Your task to perform on an android device: find photos in the google photos app Image 0: 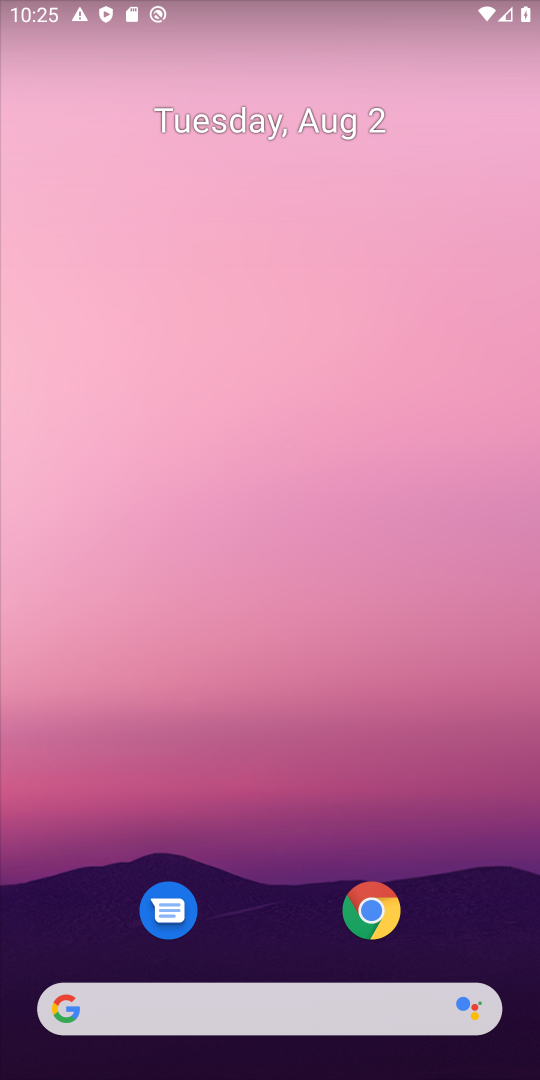
Step 0: drag from (258, 923) to (240, 10)
Your task to perform on an android device: find photos in the google photos app Image 1: 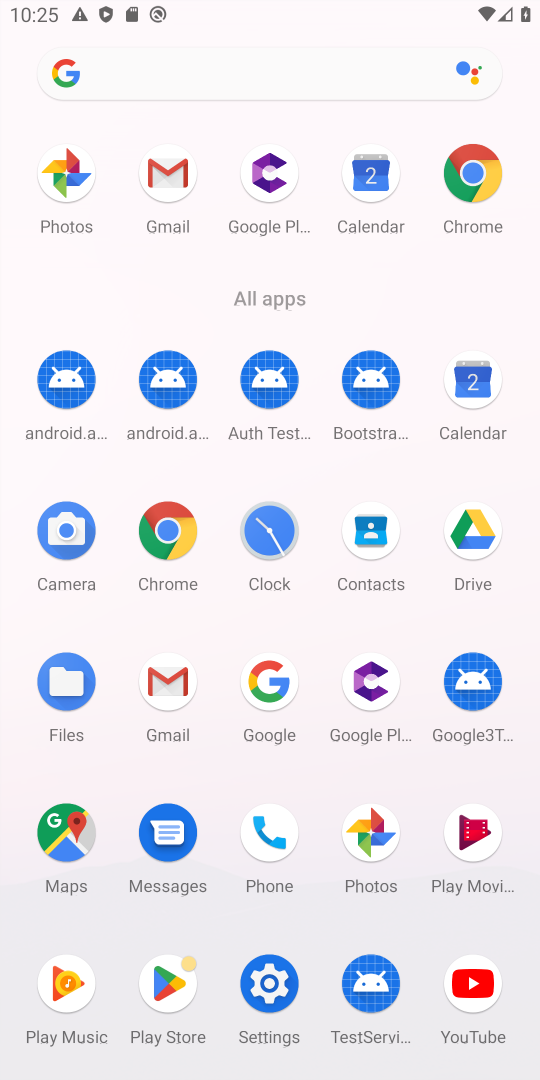
Step 1: click (368, 834)
Your task to perform on an android device: find photos in the google photos app Image 2: 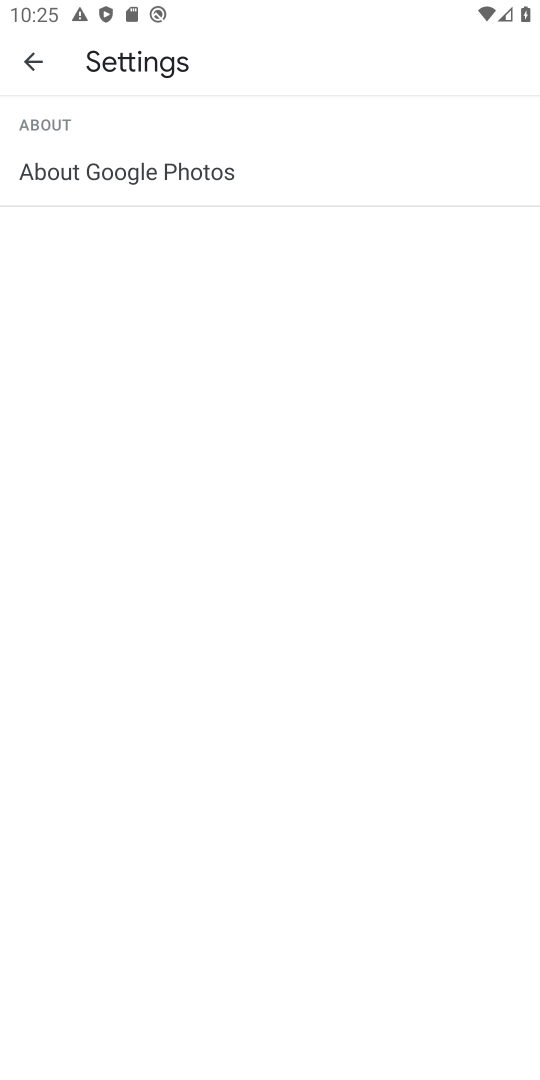
Step 2: click (30, 57)
Your task to perform on an android device: find photos in the google photos app Image 3: 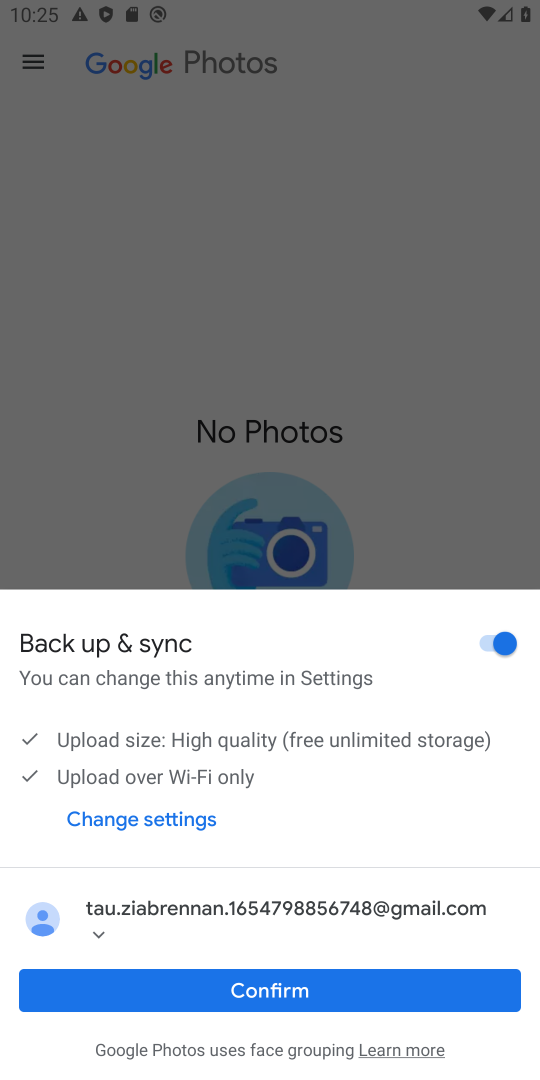
Step 3: click (169, 989)
Your task to perform on an android device: find photos in the google photos app Image 4: 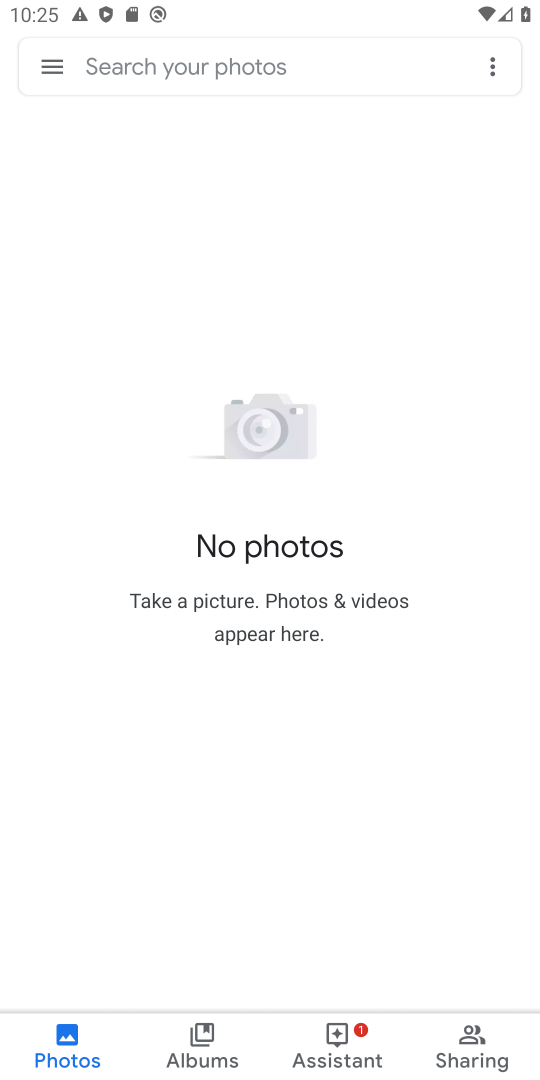
Step 4: press home button
Your task to perform on an android device: find photos in the google photos app Image 5: 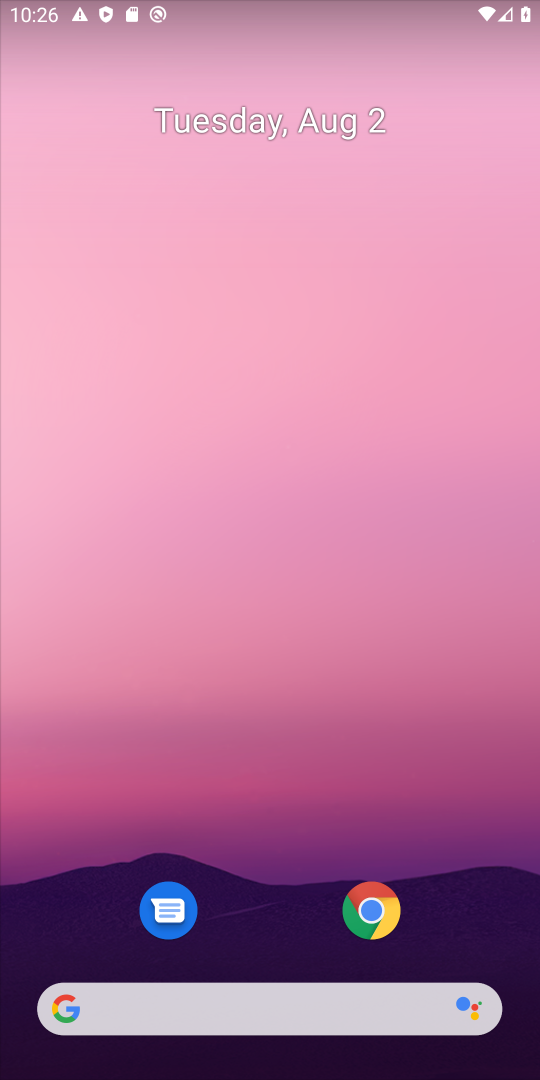
Step 5: drag from (304, 947) to (261, 38)
Your task to perform on an android device: find photos in the google photos app Image 6: 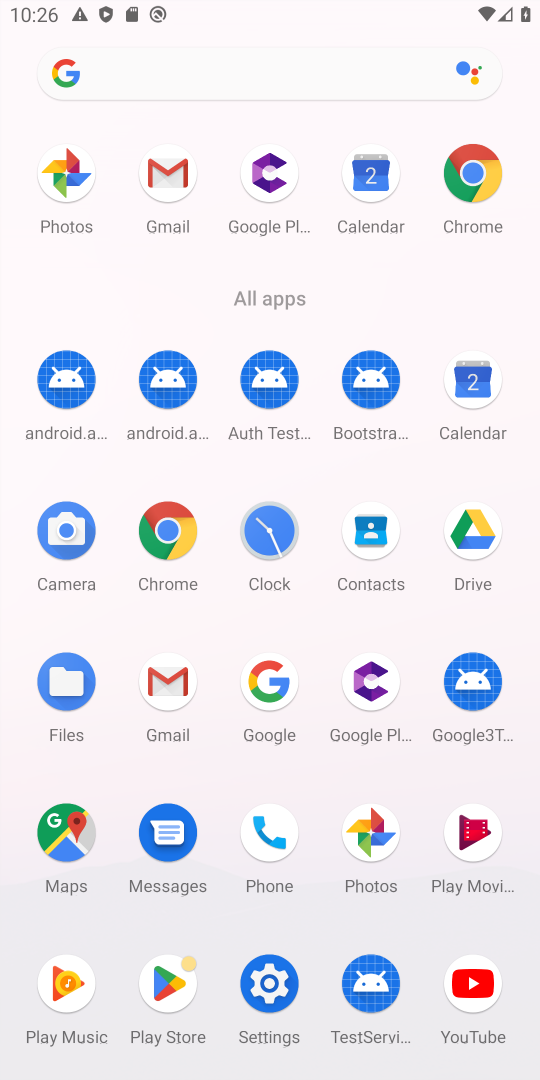
Step 6: click (357, 833)
Your task to perform on an android device: find photos in the google photos app Image 7: 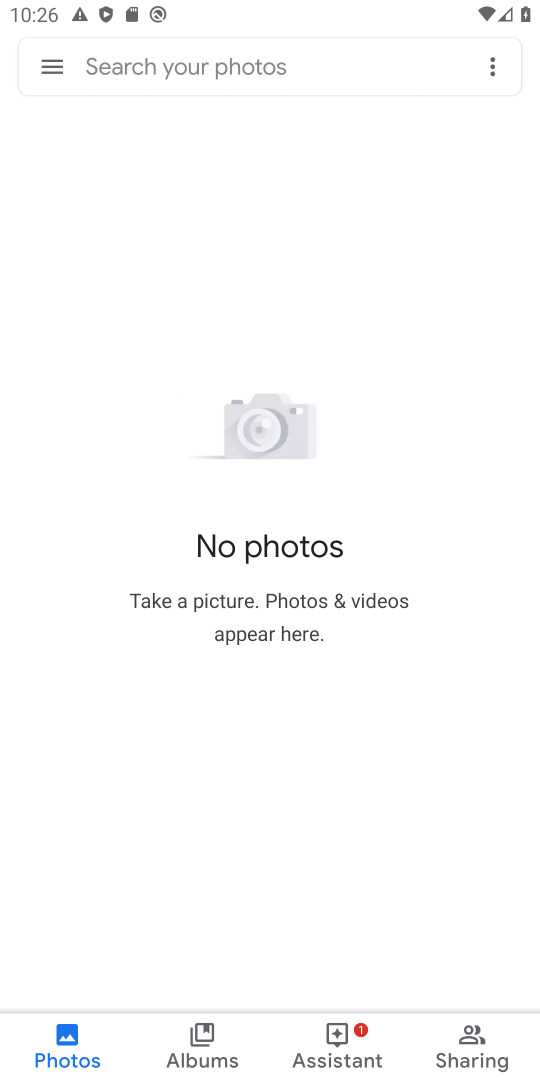
Step 7: task complete